Your task to perform on an android device: View the shopping cart on costco. Search for razer kraken on costco, select the first entry, and add it to the cart. Image 0: 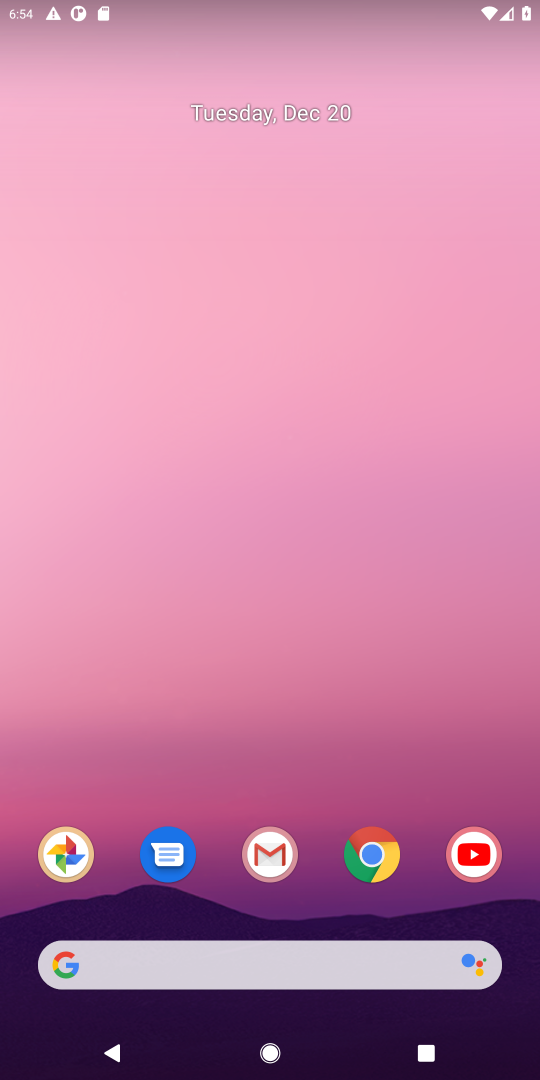
Step 0: click (368, 865)
Your task to perform on an android device: View the shopping cart on costco. Search for razer kraken on costco, select the first entry, and add it to the cart. Image 1: 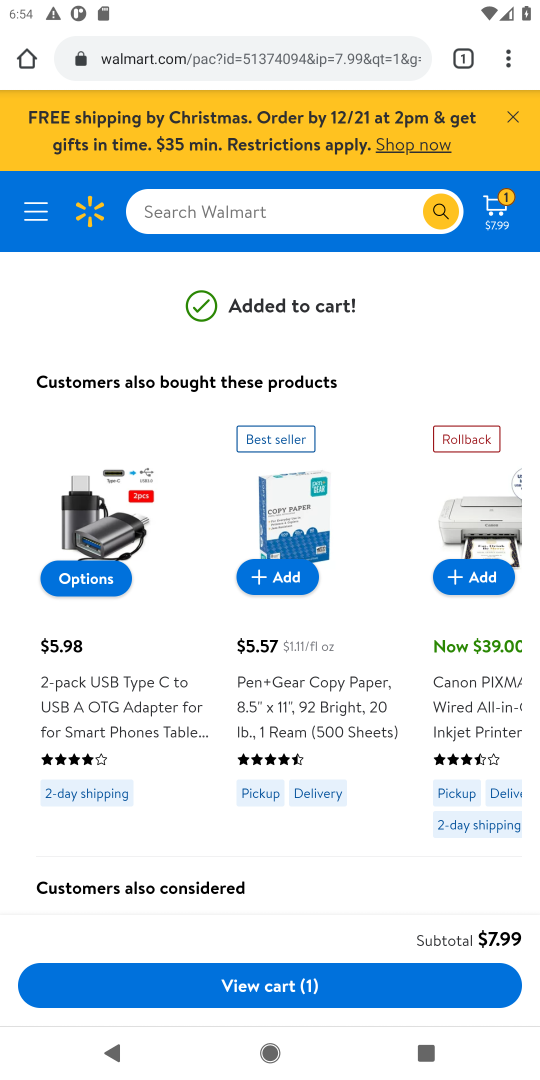
Step 1: click (180, 68)
Your task to perform on an android device: View the shopping cart on costco. Search for razer kraken on costco, select the first entry, and add it to the cart. Image 2: 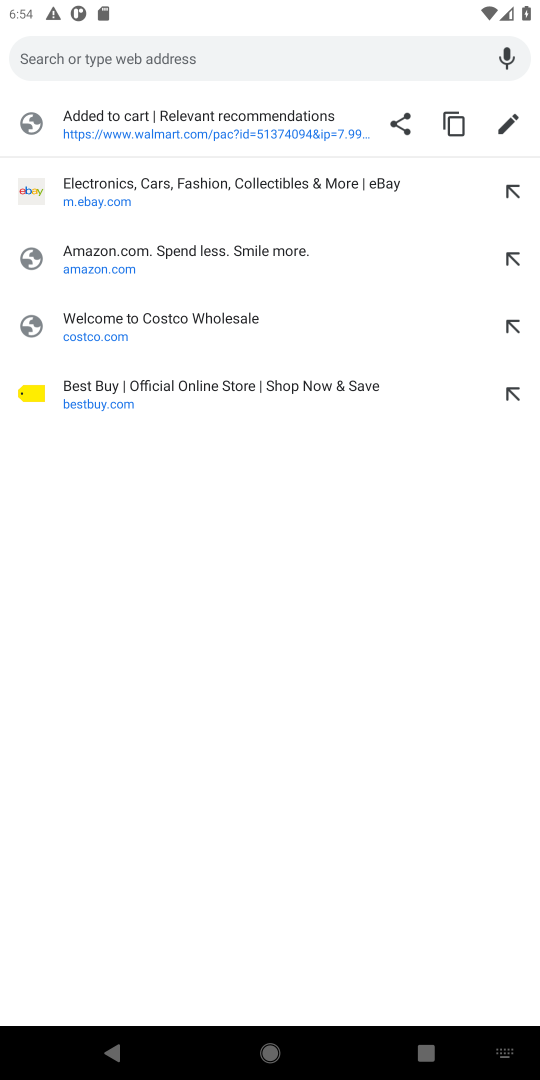
Step 2: click (68, 326)
Your task to perform on an android device: View the shopping cart on costco. Search for razer kraken on costco, select the first entry, and add it to the cart. Image 3: 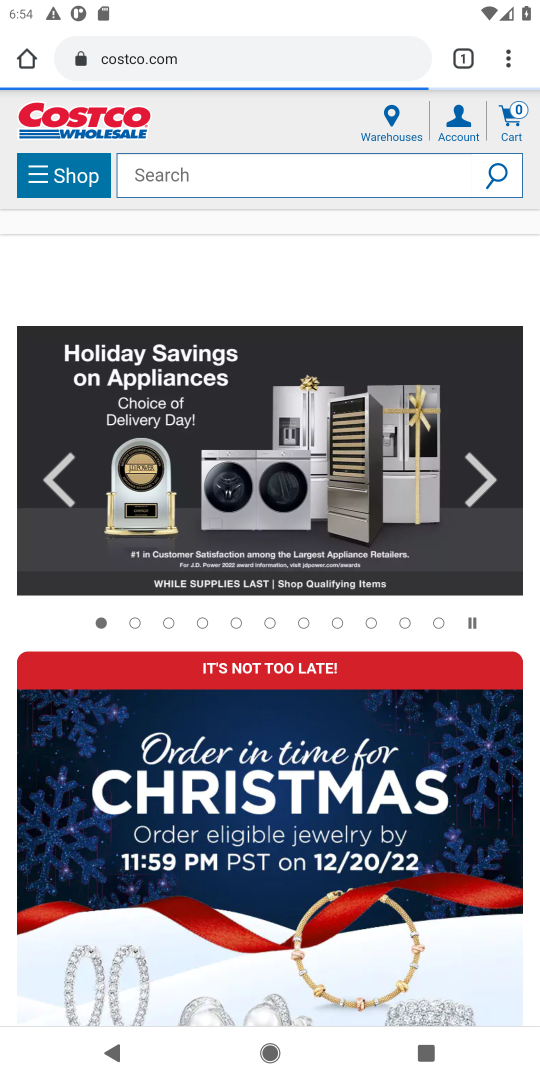
Step 3: click (508, 127)
Your task to perform on an android device: View the shopping cart on costco. Search for razer kraken on costco, select the first entry, and add it to the cart. Image 4: 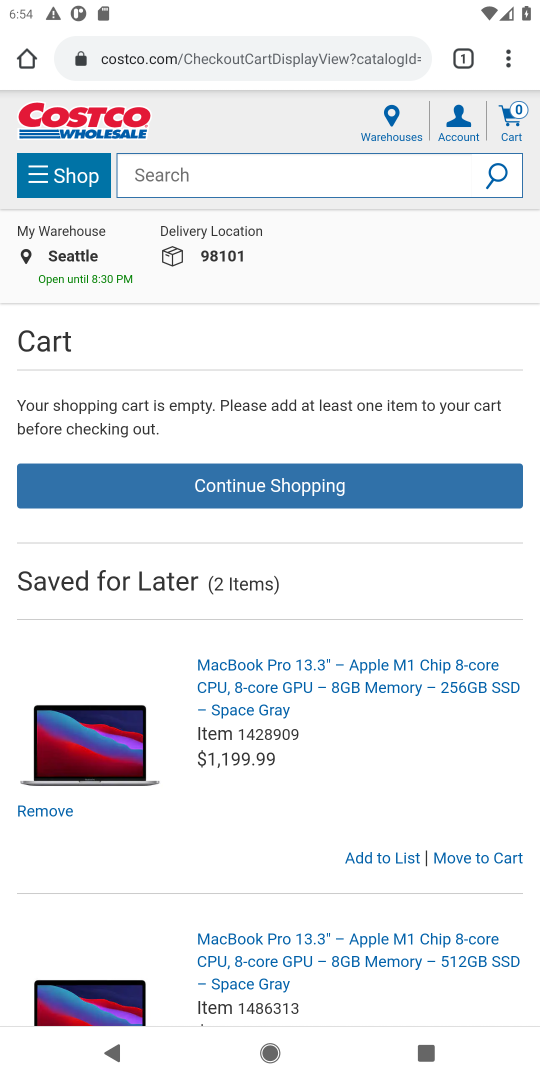
Step 4: click (180, 178)
Your task to perform on an android device: View the shopping cart on costco. Search for razer kraken on costco, select the first entry, and add it to the cart. Image 5: 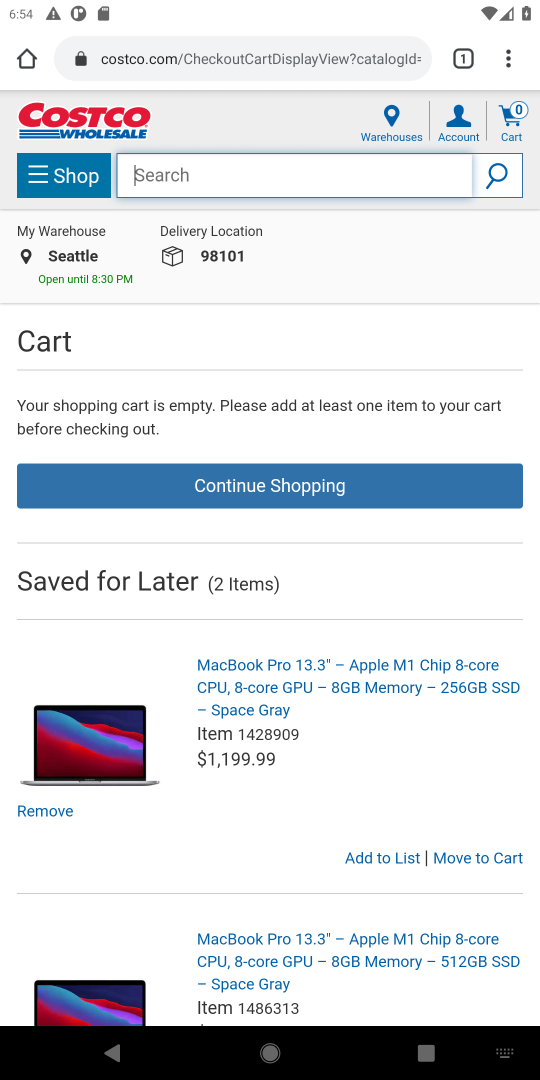
Step 5: type "razer kraken "
Your task to perform on an android device: View the shopping cart on costco. Search for razer kraken on costco, select the first entry, and add it to the cart. Image 6: 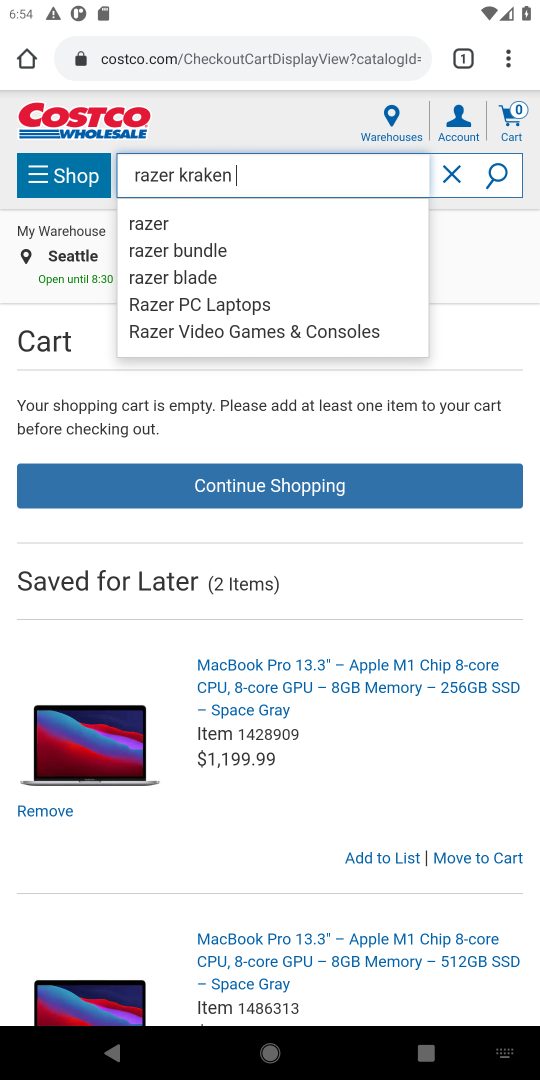
Step 6: click (510, 171)
Your task to perform on an android device: View the shopping cart on costco. Search for razer kraken on costco, select the first entry, and add it to the cart. Image 7: 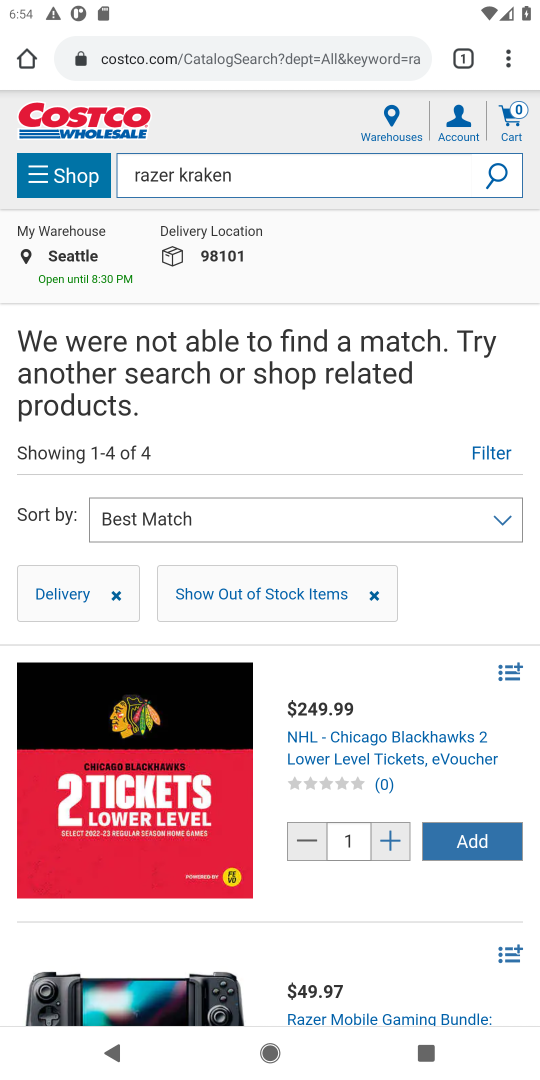
Step 7: task complete